Your task to perform on an android device: See recent photos Image 0: 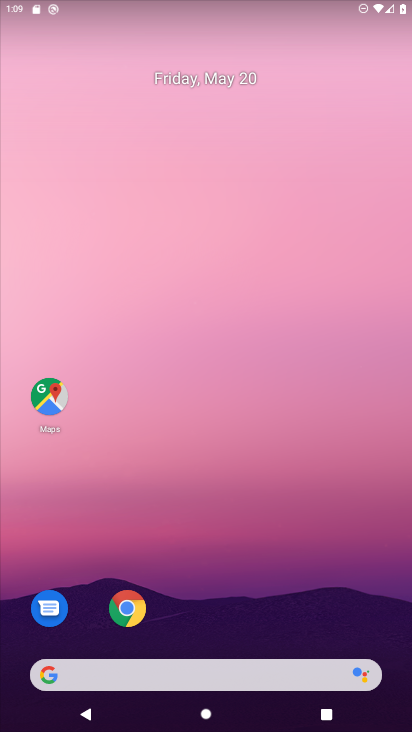
Step 0: press home button
Your task to perform on an android device: See recent photos Image 1: 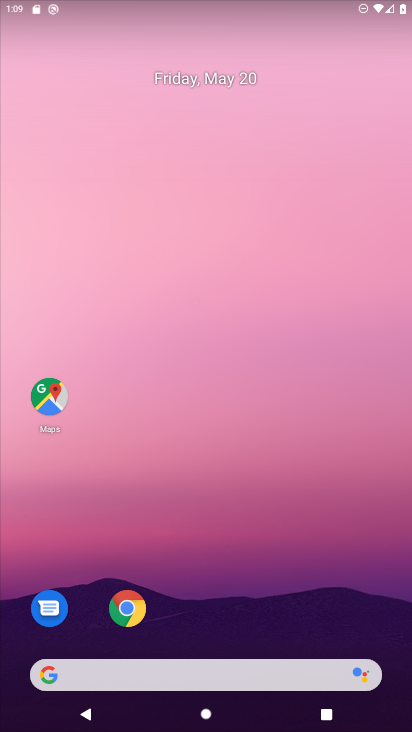
Step 1: press home button
Your task to perform on an android device: See recent photos Image 2: 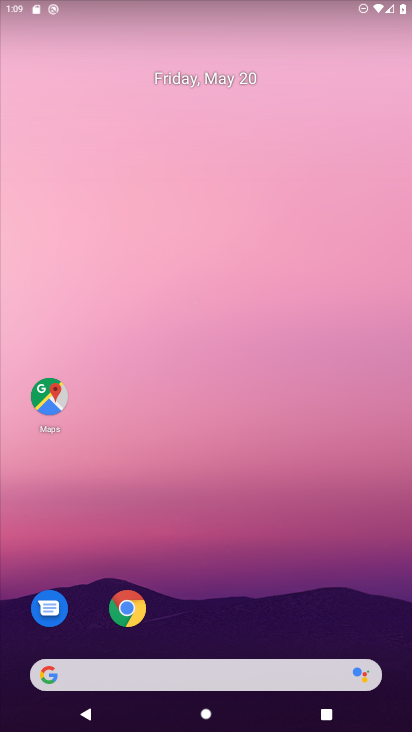
Step 2: drag from (309, 614) to (304, 196)
Your task to perform on an android device: See recent photos Image 3: 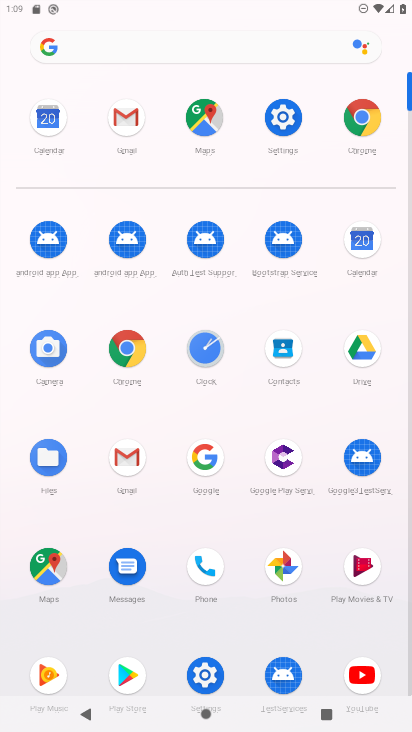
Step 3: click (290, 559)
Your task to perform on an android device: See recent photos Image 4: 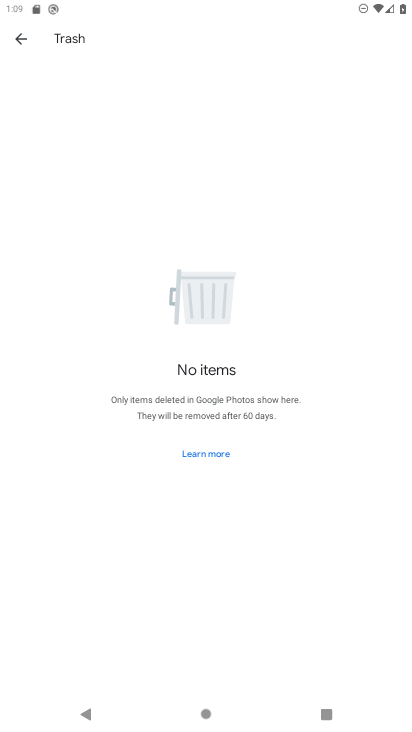
Step 4: click (18, 33)
Your task to perform on an android device: See recent photos Image 5: 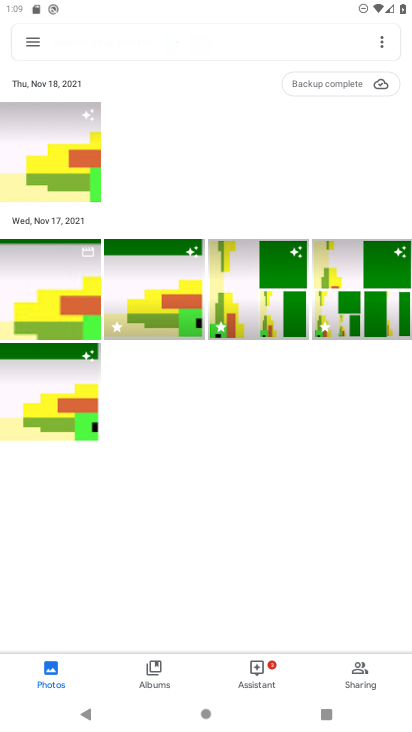
Step 5: task complete